Your task to perform on an android device: Open Google Chrome and click the shortcut for Amazon.com Image 0: 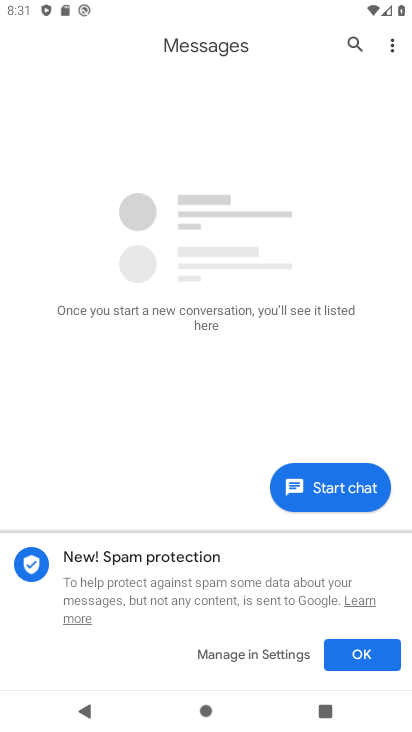
Step 0: press back button
Your task to perform on an android device: Open Google Chrome and click the shortcut for Amazon.com Image 1: 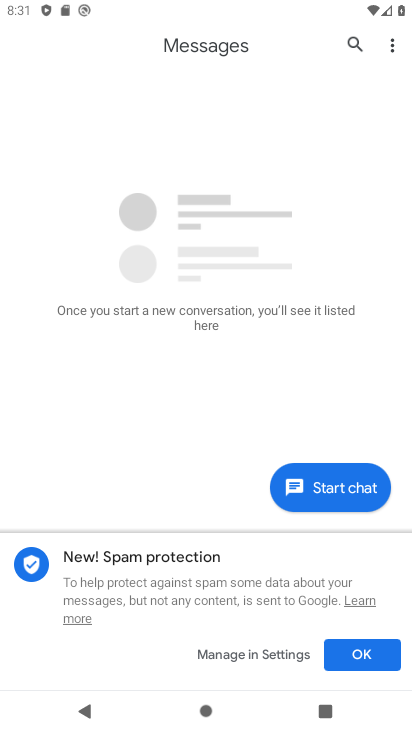
Step 1: press back button
Your task to perform on an android device: Open Google Chrome and click the shortcut for Amazon.com Image 2: 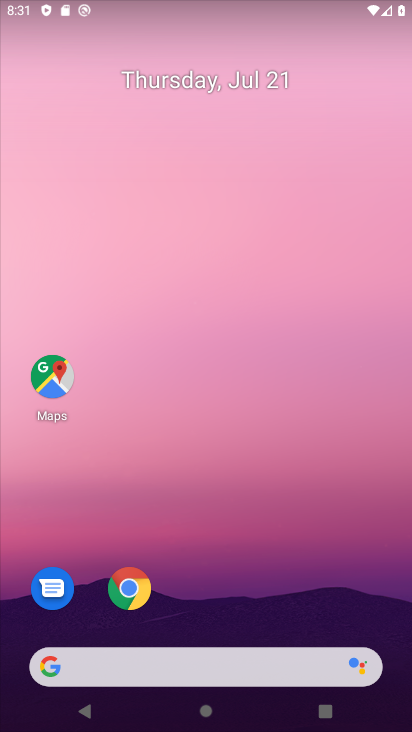
Step 2: press home button
Your task to perform on an android device: Open Google Chrome and click the shortcut for Amazon.com Image 3: 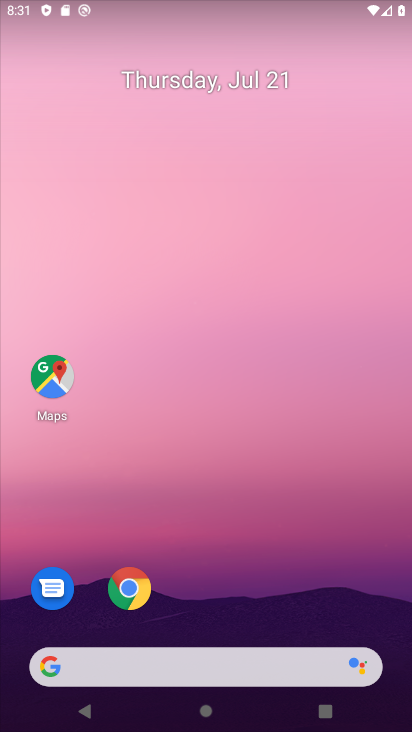
Step 3: press home button
Your task to perform on an android device: Open Google Chrome and click the shortcut for Amazon.com Image 4: 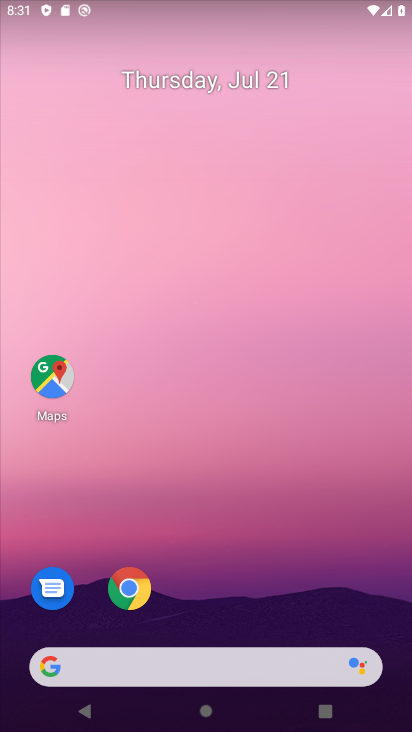
Step 4: drag from (234, 471) to (196, 160)
Your task to perform on an android device: Open Google Chrome and click the shortcut for Amazon.com Image 5: 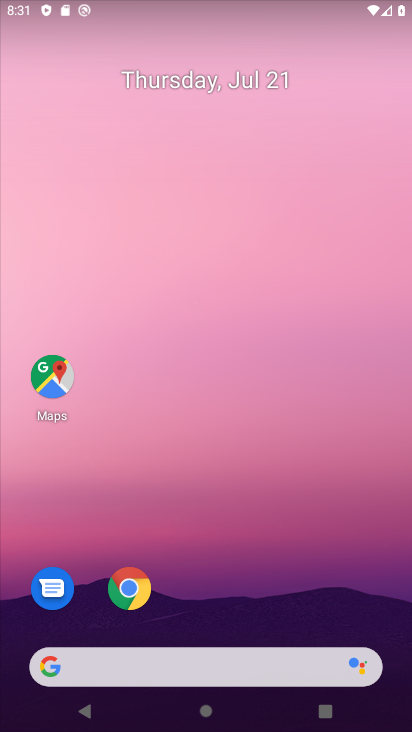
Step 5: drag from (231, 610) to (164, 89)
Your task to perform on an android device: Open Google Chrome and click the shortcut for Amazon.com Image 6: 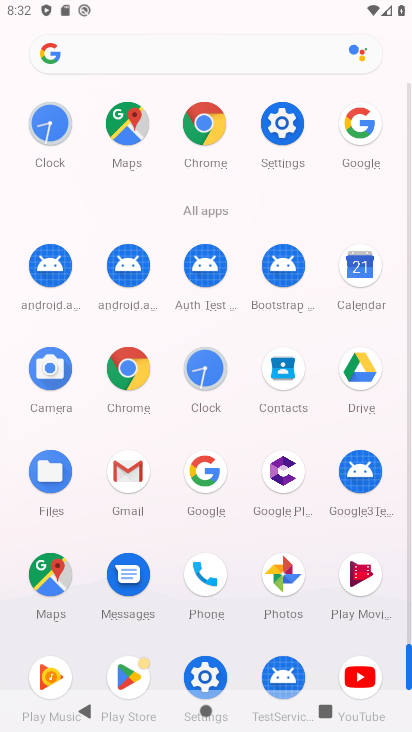
Step 6: click (205, 121)
Your task to perform on an android device: Open Google Chrome and click the shortcut for Amazon.com Image 7: 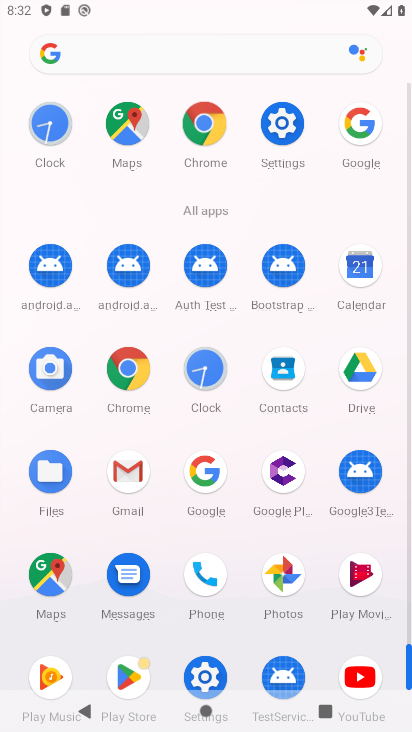
Step 7: click (205, 121)
Your task to perform on an android device: Open Google Chrome and click the shortcut for Amazon.com Image 8: 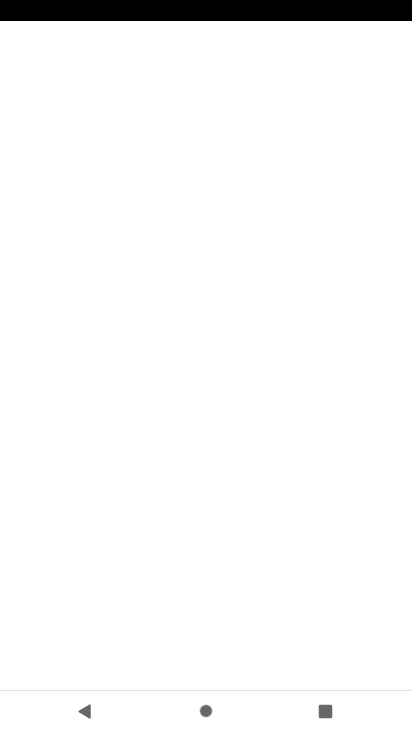
Step 8: click (205, 121)
Your task to perform on an android device: Open Google Chrome and click the shortcut for Amazon.com Image 9: 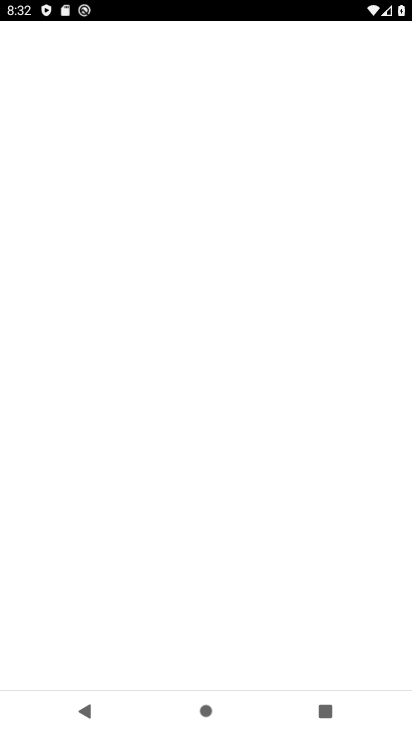
Step 9: click (206, 121)
Your task to perform on an android device: Open Google Chrome and click the shortcut for Amazon.com Image 10: 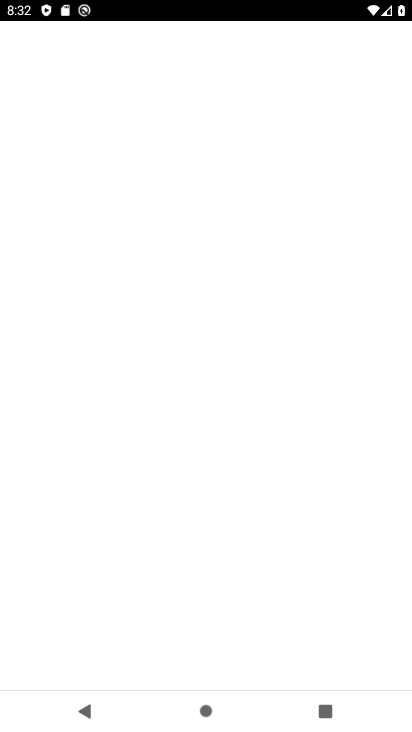
Step 10: click (206, 121)
Your task to perform on an android device: Open Google Chrome and click the shortcut for Amazon.com Image 11: 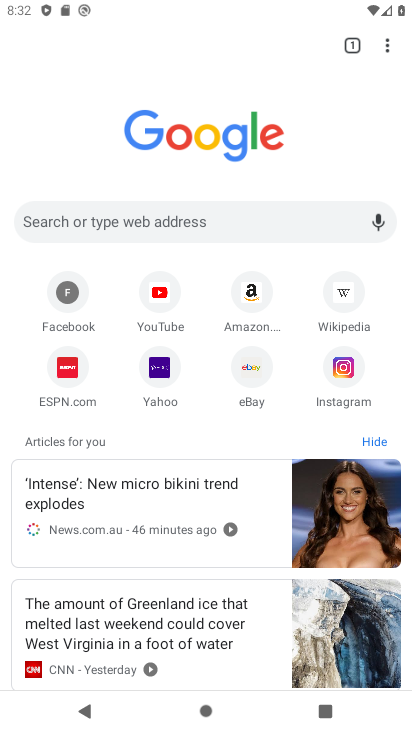
Step 11: click (253, 293)
Your task to perform on an android device: Open Google Chrome and click the shortcut for Amazon.com Image 12: 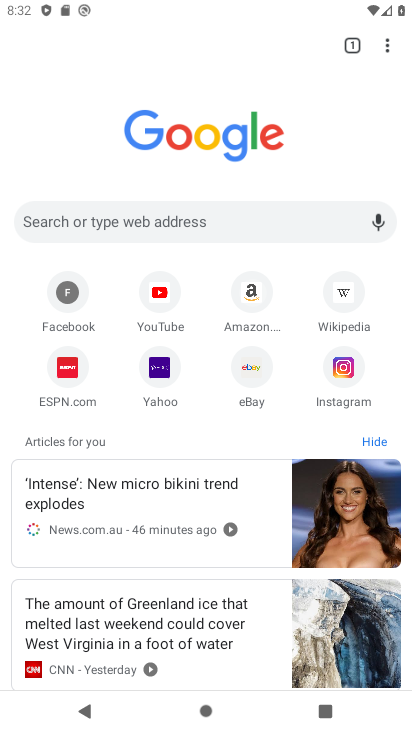
Step 12: click (253, 293)
Your task to perform on an android device: Open Google Chrome and click the shortcut for Amazon.com Image 13: 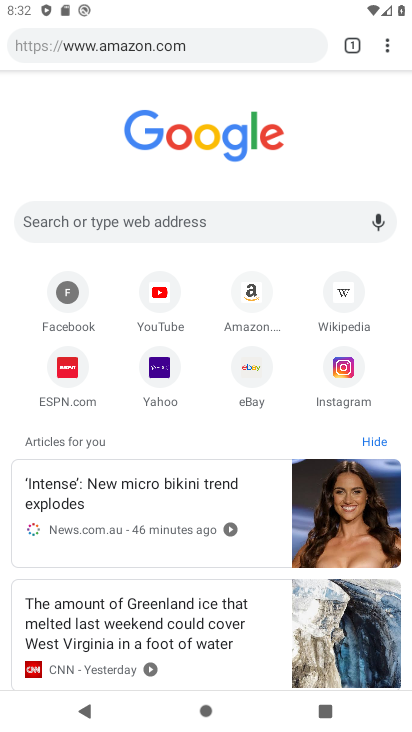
Step 13: click (253, 293)
Your task to perform on an android device: Open Google Chrome and click the shortcut for Amazon.com Image 14: 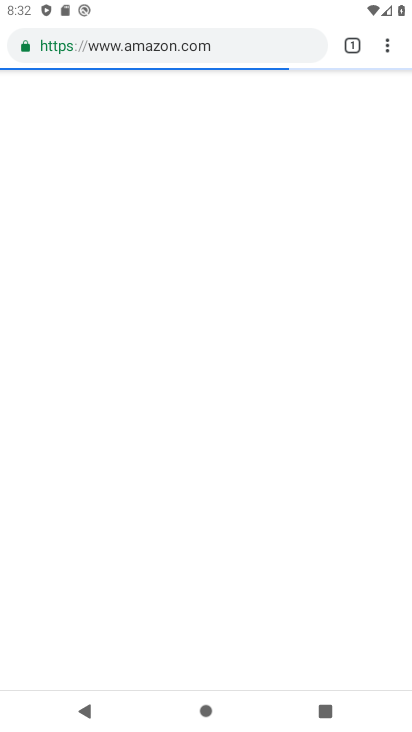
Step 14: task complete